Your task to perform on an android device: turn off picture-in-picture Image 0: 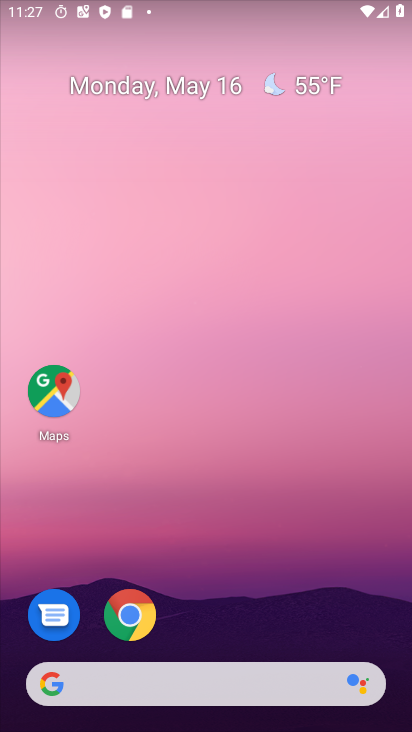
Step 0: press home button
Your task to perform on an android device: turn off picture-in-picture Image 1: 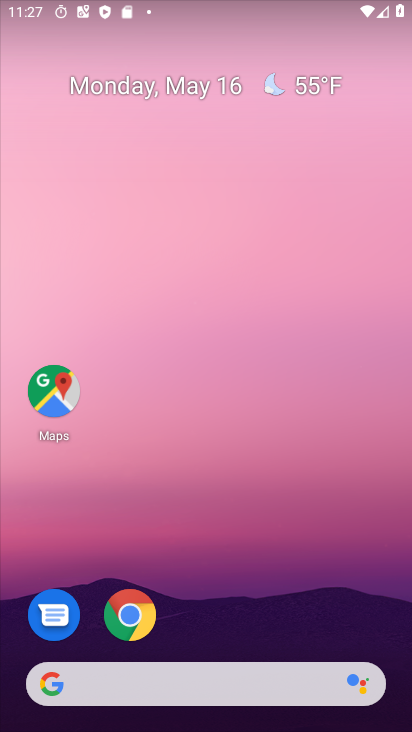
Step 1: press home button
Your task to perform on an android device: turn off picture-in-picture Image 2: 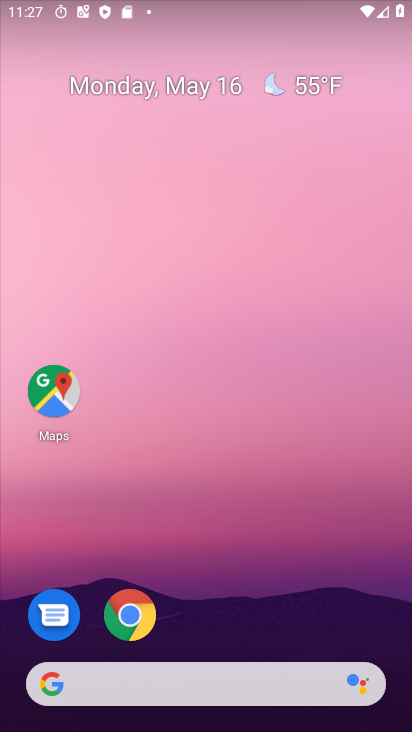
Step 2: click (113, 615)
Your task to perform on an android device: turn off picture-in-picture Image 3: 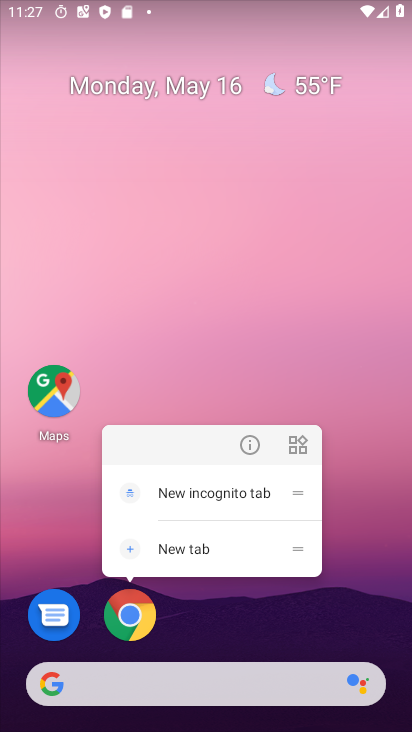
Step 3: click (253, 443)
Your task to perform on an android device: turn off picture-in-picture Image 4: 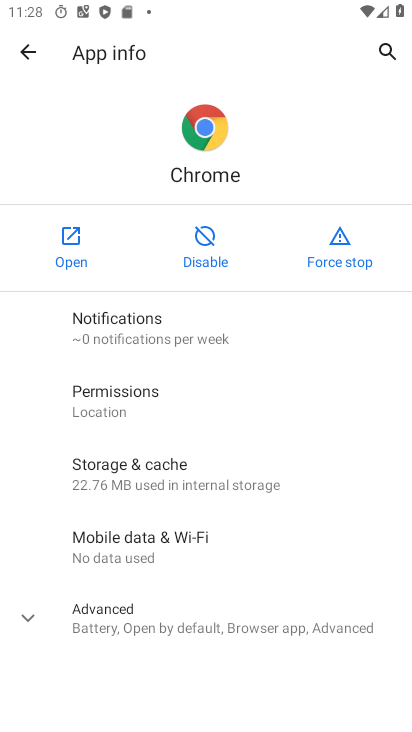
Step 4: drag from (198, 620) to (206, 230)
Your task to perform on an android device: turn off picture-in-picture Image 5: 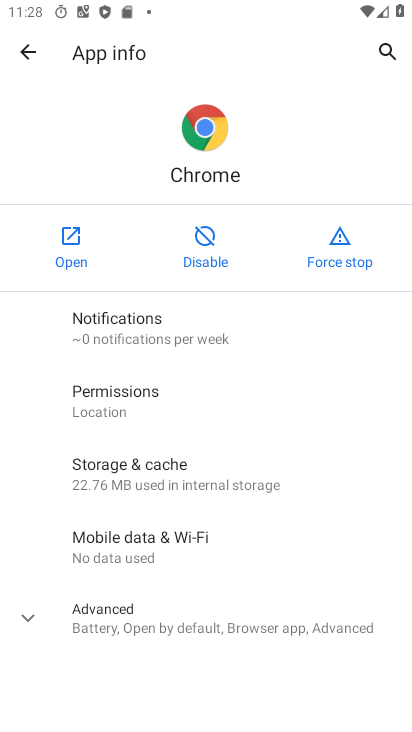
Step 5: click (322, 637)
Your task to perform on an android device: turn off picture-in-picture Image 6: 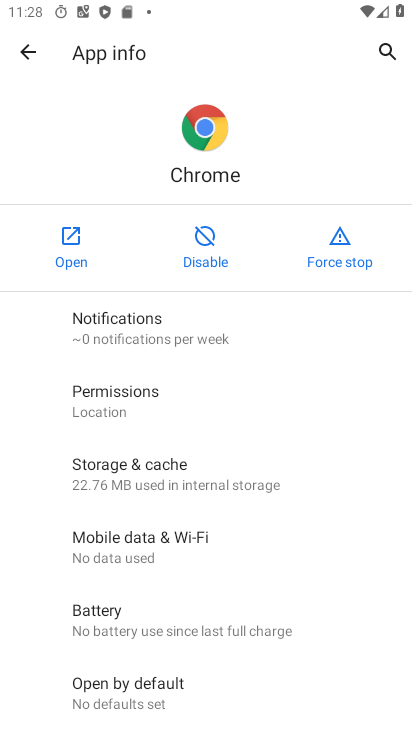
Step 6: drag from (164, 680) to (201, 182)
Your task to perform on an android device: turn off picture-in-picture Image 7: 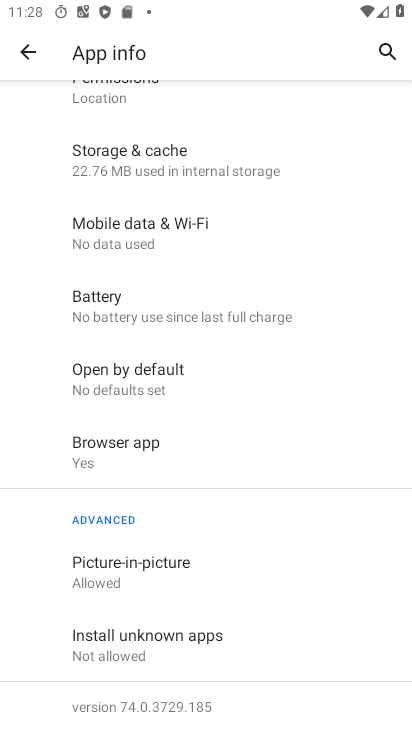
Step 7: drag from (285, 578) to (262, 278)
Your task to perform on an android device: turn off picture-in-picture Image 8: 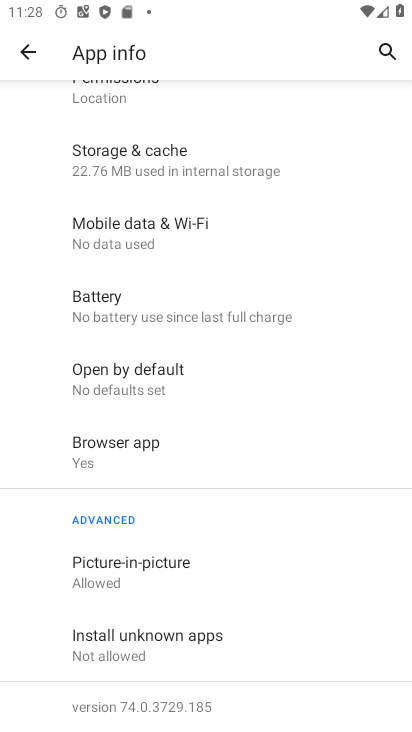
Step 8: drag from (181, 549) to (165, 271)
Your task to perform on an android device: turn off picture-in-picture Image 9: 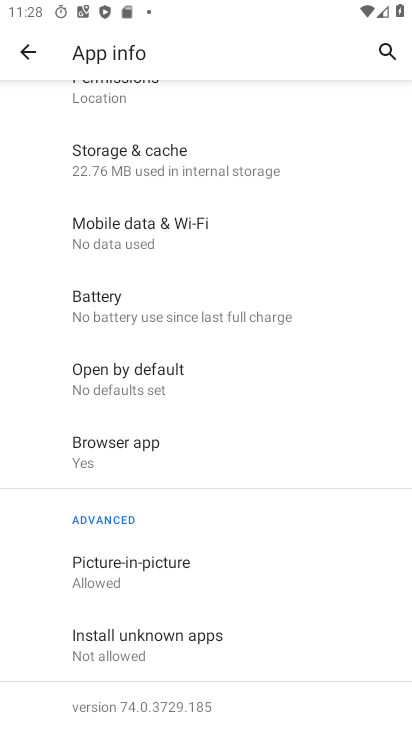
Step 9: click (186, 574)
Your task to perform on an android device: turn off picture-in-picture Image 10: 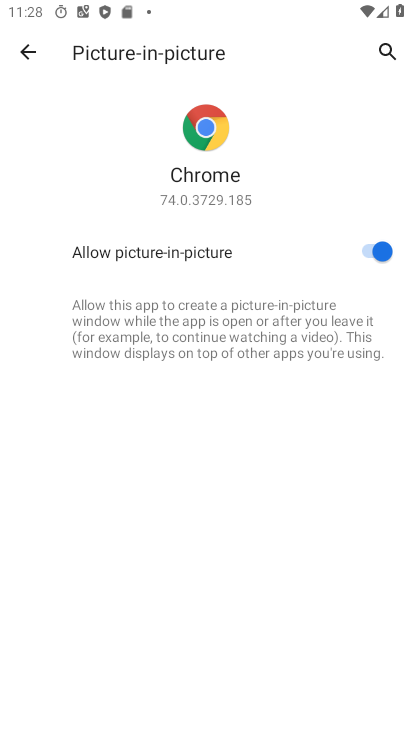
Step 10: click (366, 259)
Your task to perform on an android device: turn off picture-in-picture Image 11: 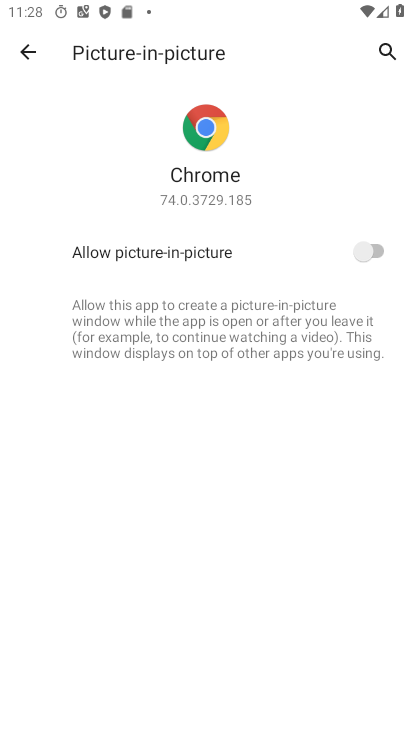
Step 11: task complete